Your task to perform on an android device: Open eBay Image 0: 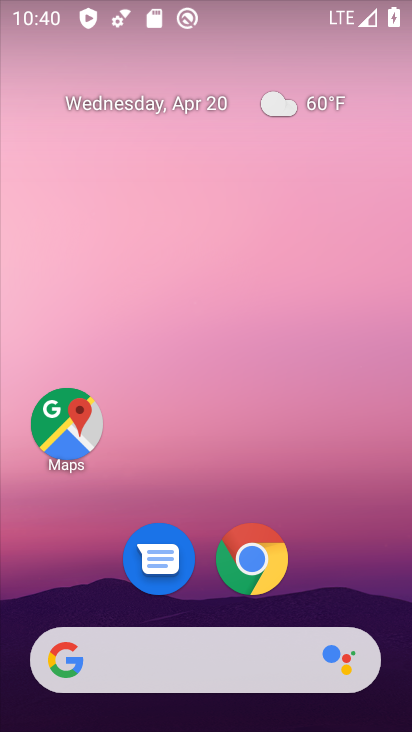
Step 0: click (254, 557)
Your task to perform on an android device: Open eBay Image 1: 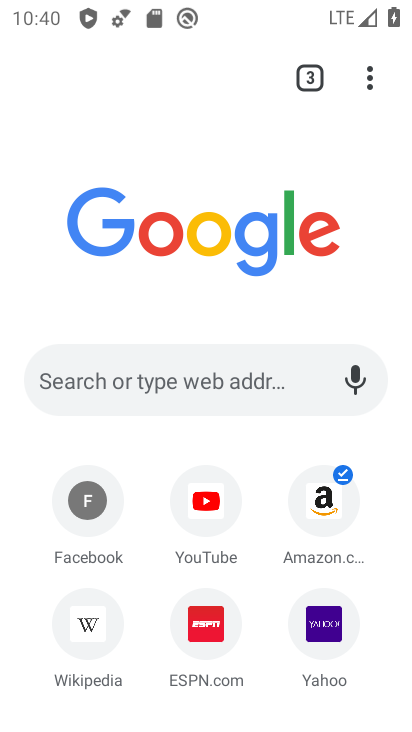
Step 1: click (219, 374)
Your task to perform on an android device: Open eBay Image 2: 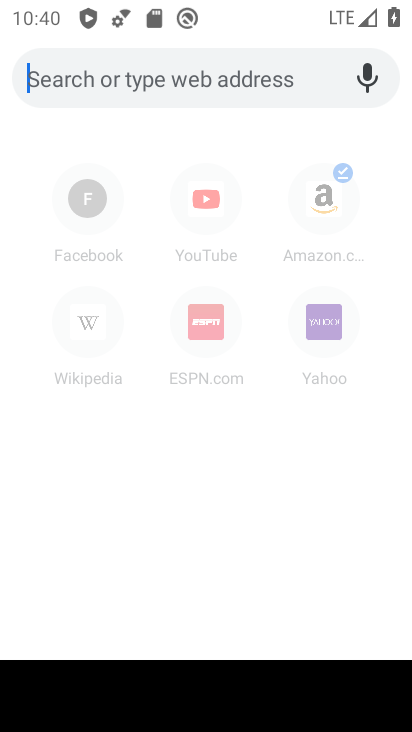
Step 2: type "ebay"
Your task to perform on an android device: Open eBay Image 3: 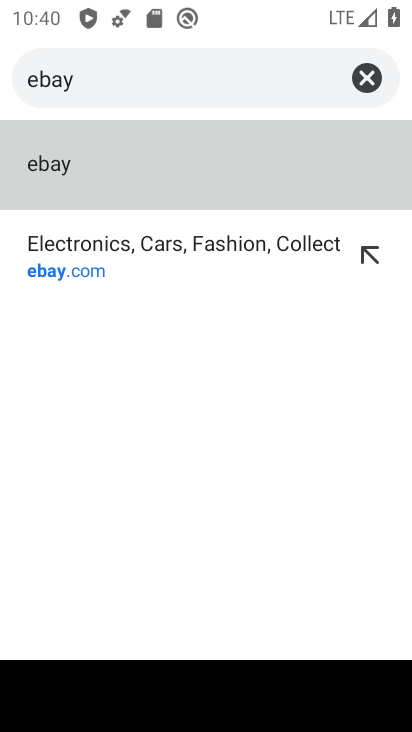
Step 3: click (66, 163)
Your task to perform on an android device: Open eBay Image 4: 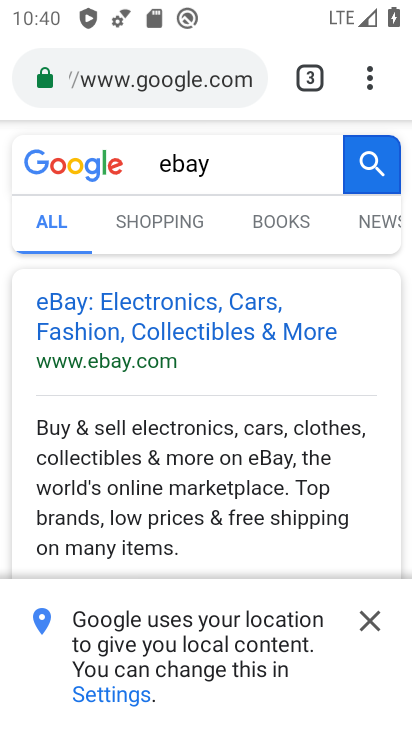
Step 4: click (126, 319)
Your task to perform on an android device: Open eBay Image 5: 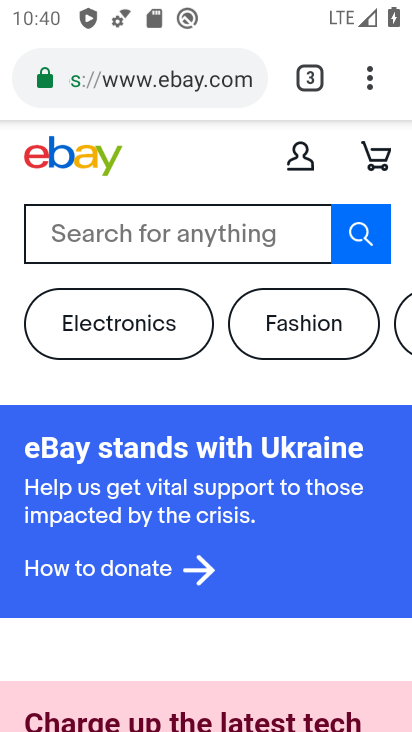
Step 5: task complete